Your task to perform on an android device: Open Chrome and go to the settings page Image 0: 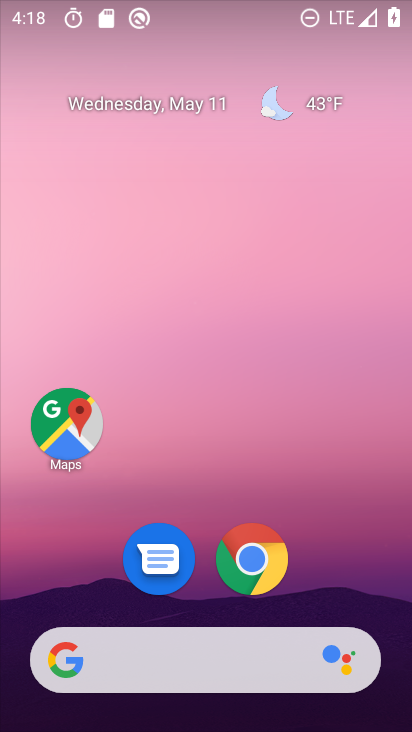
Step 0: click (255, 558)
Your task to perform on an android device: Open Chrome and go to the settings page Image 1: 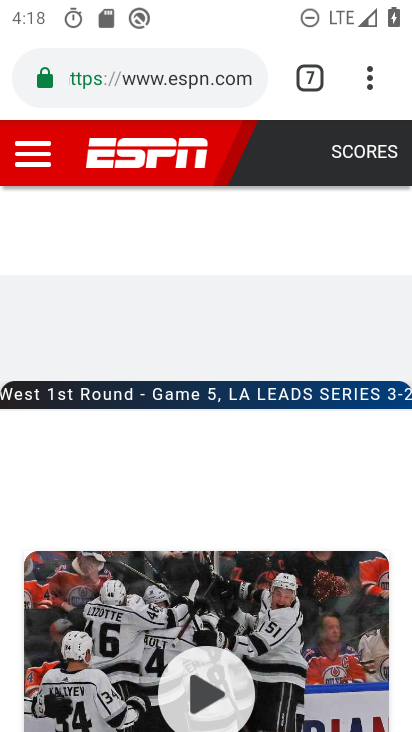
Step 1: click (374, 76)
Your task to perform on an android device: Open Chrome and go to the settings page Image 2: 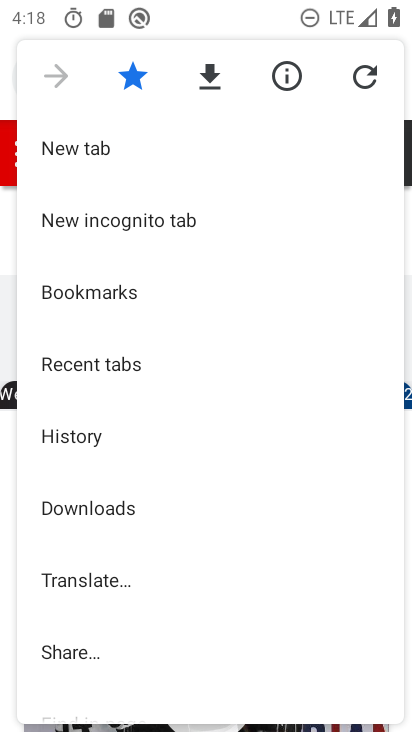
Step 2: drag from (209, 590) to (232, 250)
Your task to perform on an android device: Open Chrome and go to the settings page Image 3: 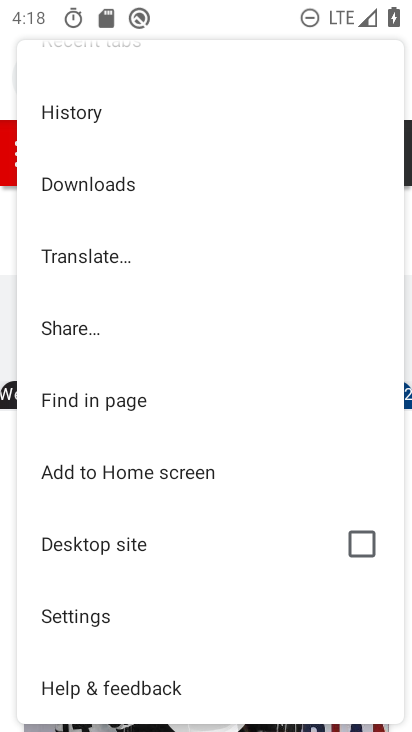
Step 3: click (139, 621)
Your task to perform on an android device: Open Chrome and go to the settings page Image 4: 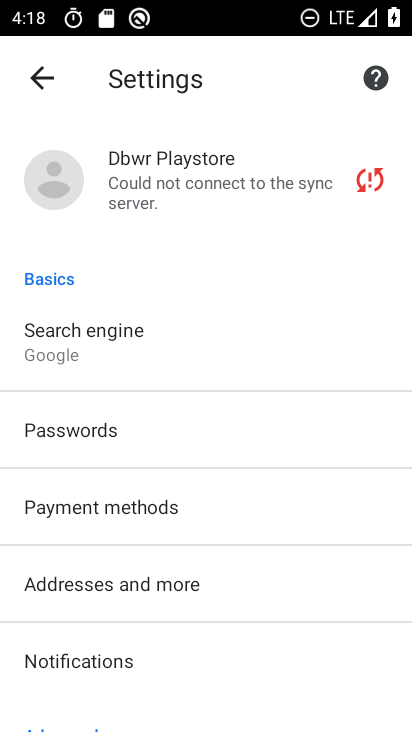
Step 4: task complete